Your task to perform on an android device: turn notification dots on Image 0: 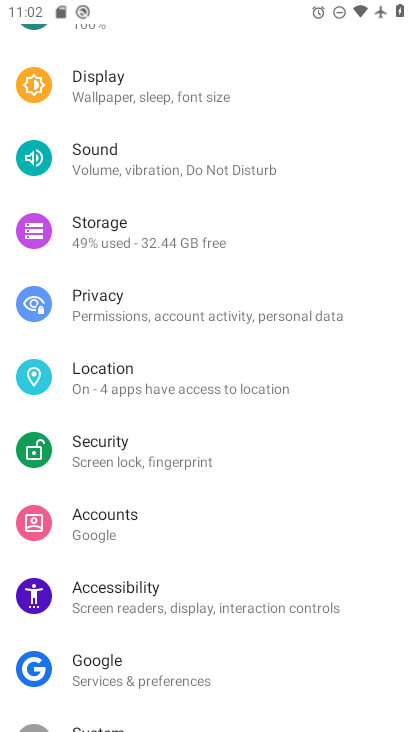
Step 0: drag from (231, 171) to (223, 488)
Your task to perform on an android device: turn notification dots on Image 1: 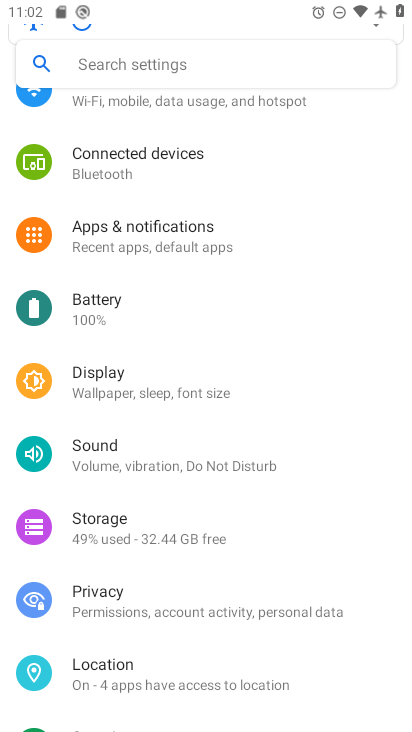
Step 1: click (144, 226)
Your task to perform on an android device: turn notification dots on Image 2: 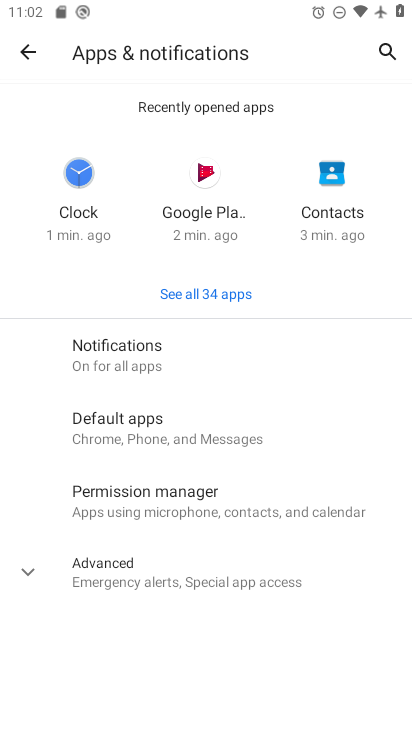
Step 2: click (105, 358)
Your task to perform on an android device: turn notification dots on Image 3: 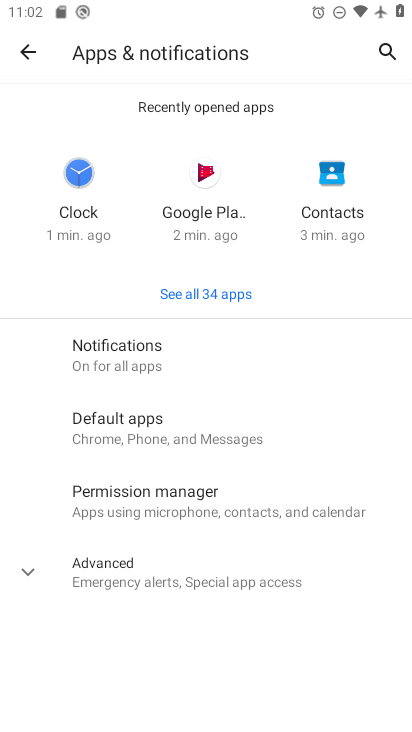
Step 3: click (105, 358)
Your task to perform on an android device: turn notification dots on Image 4: 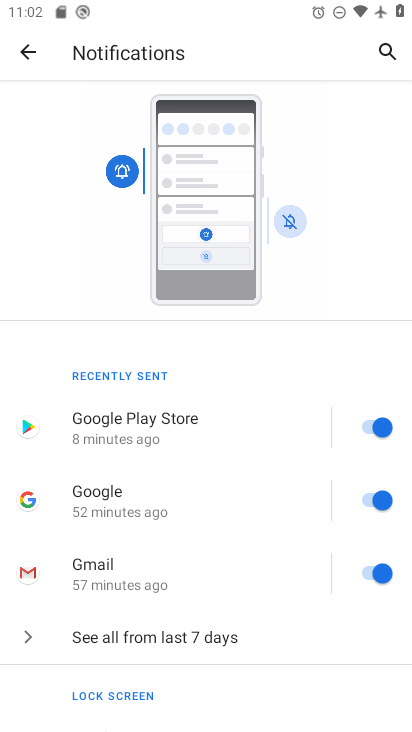
Step 4: drag from (310, 674) to (223, 253)
Your task to perform on an android device: turn notification dots on Image 5: 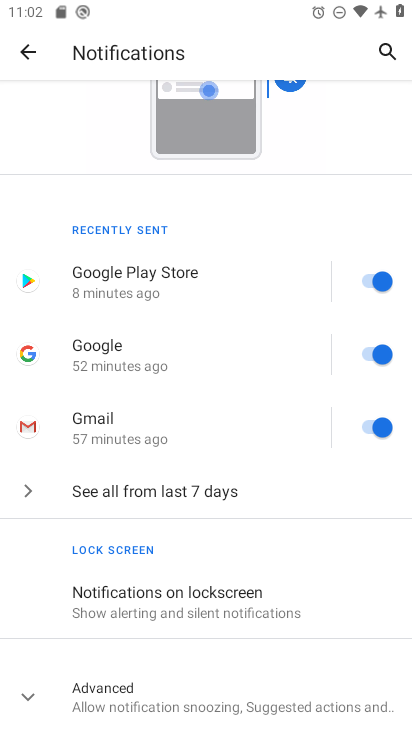
Step 5: click (39, 692)
Your task to perform on an android device: turn notification dots on Image 6: 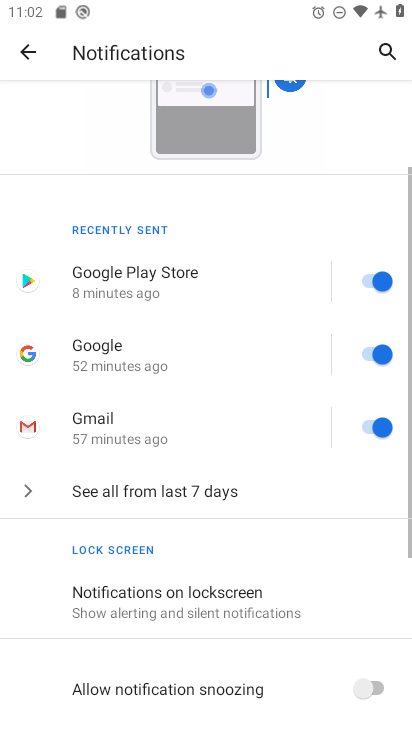
Step 6: task complete